Your task to perform on an android device: Do I have any events this weekend? Image 0: 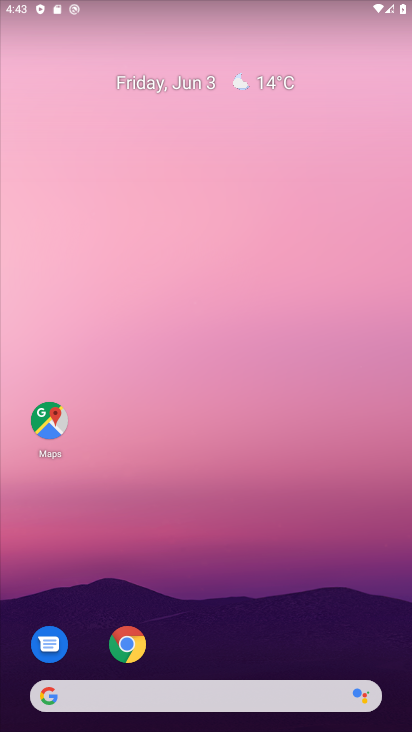
Step 0: click (175, 80)
Your task to perform on an android device: Do I have any events this weekend? Image 1: 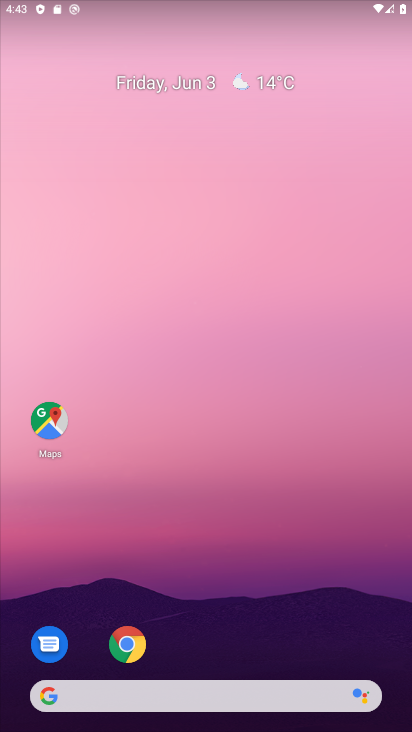
Step 1: click (143, 88)
Your task to perform on an android device: Do I have any events this weekend? Image 2: 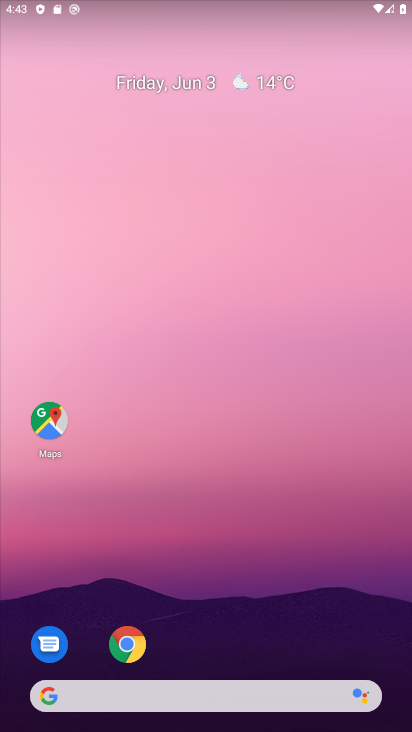
Step 2: click (143, 88)
Your task to perform on an android device: Do I have any events this weekend? Image 3: 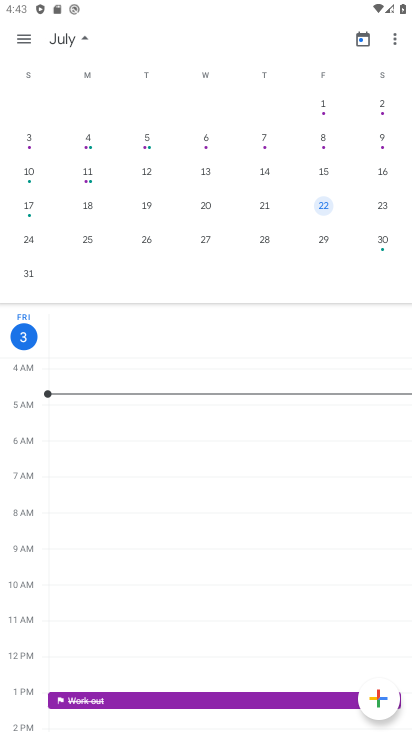
Step 3: click (386, 209)
Your task to perform on an android device: Do I have any events this weekend? Image 4: 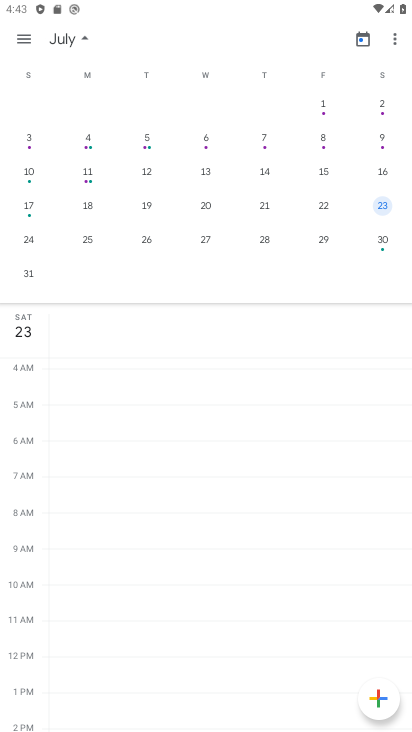
Step 4: task complete